Your task to perform on an android device: Open the phone app and click the voicemail tab. Image 0: 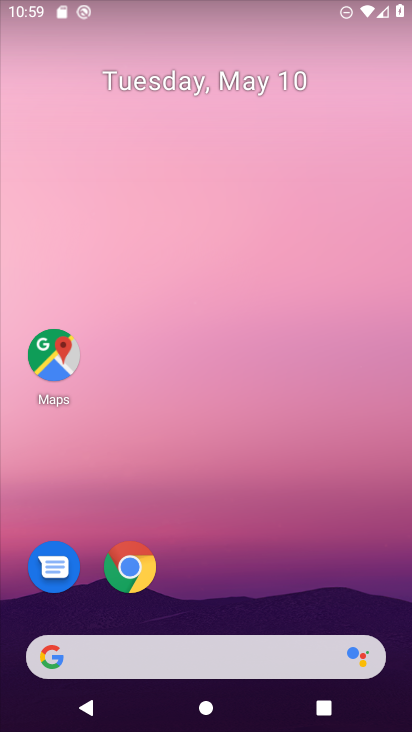
Step 0: drag from (269, 596) to (274, 164)
Your task to perform on an android device: Open the phone app and click the voicemail tab. Image 1: 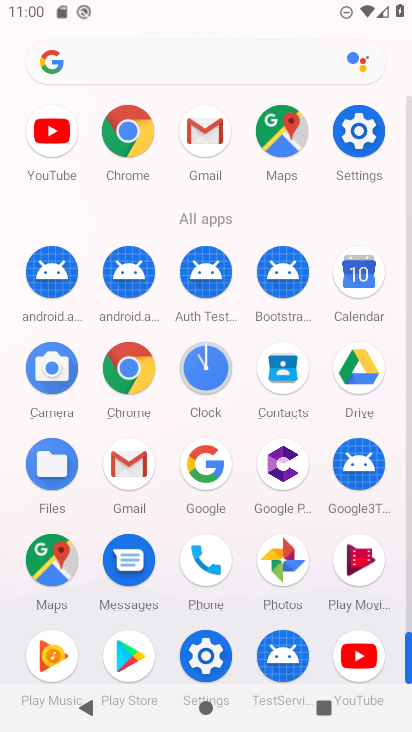
Step 1: click (200, 554)
Your task to perform on an android device: Open the phone app and click the voicemail tab. Image 2: 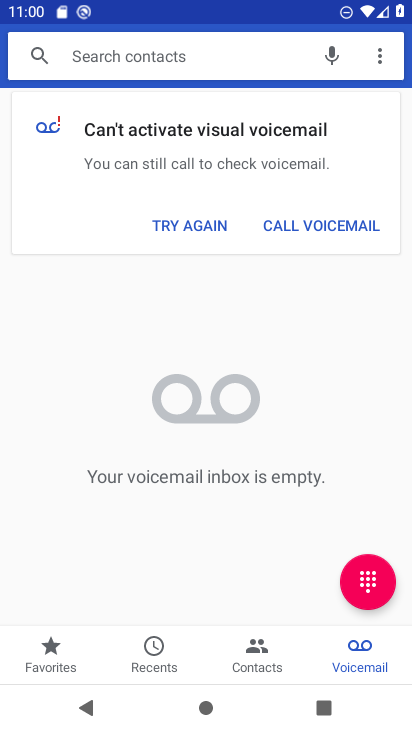
Step 2: click (381, 656)
Your task to perform on an android device: Open the phone app and click the voicemail tab. Image 3: 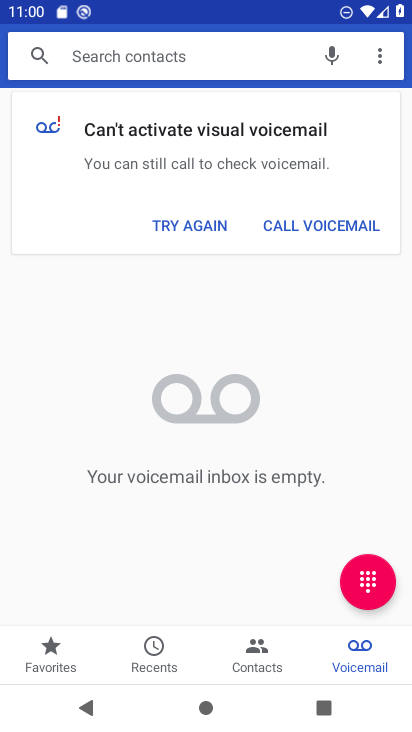
Step 3: task complete